Your task to perform on an android device: Open eBay Image 0: 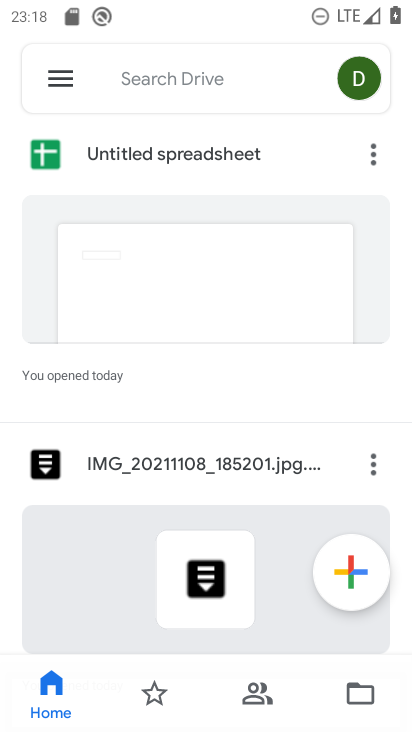
Step 0: press home button
Your task to perform on an android device: Open eBay Image 1: 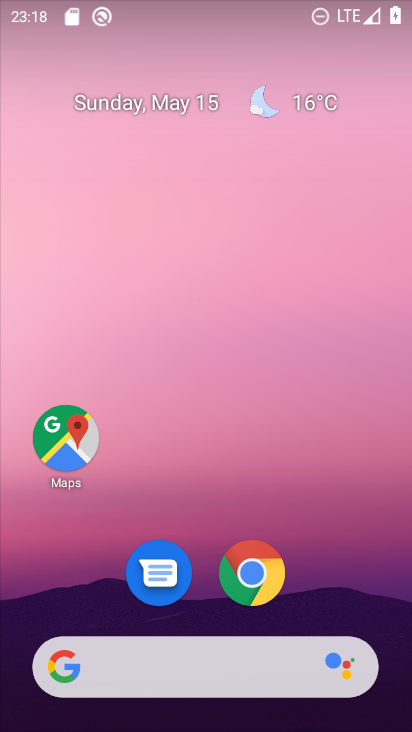
Step 1: click (255, 588)
Your task to perform on an android device: Open eBay Image 2: 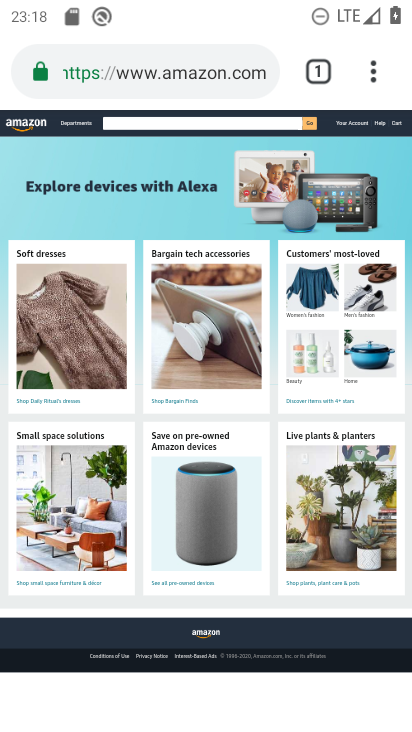
Step 2: click (213, 58)
Your task to perform on an android device: Open eBay Image 3: 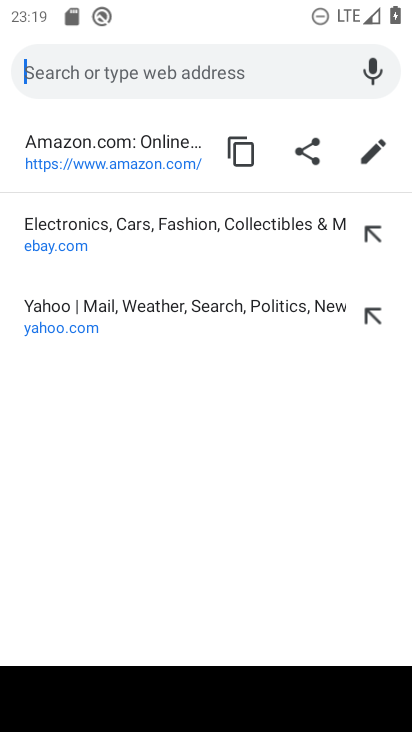
Step 3: type "eBay"
Your task to perform on an android device: Open eBay Image 4: 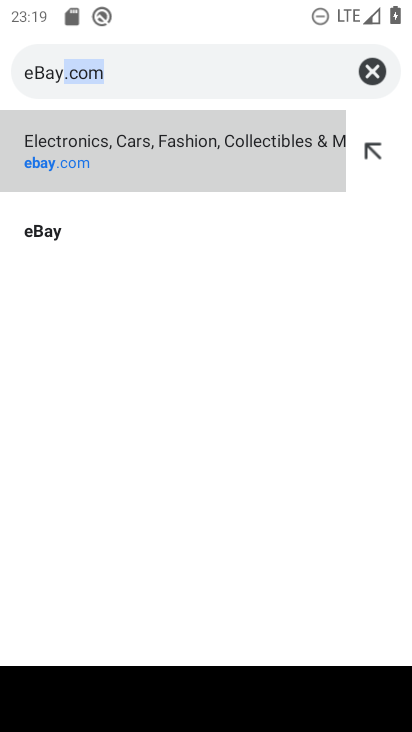
Step 4: click (284, 168)
Your task to perform on an android device: Open eBay Image 5: 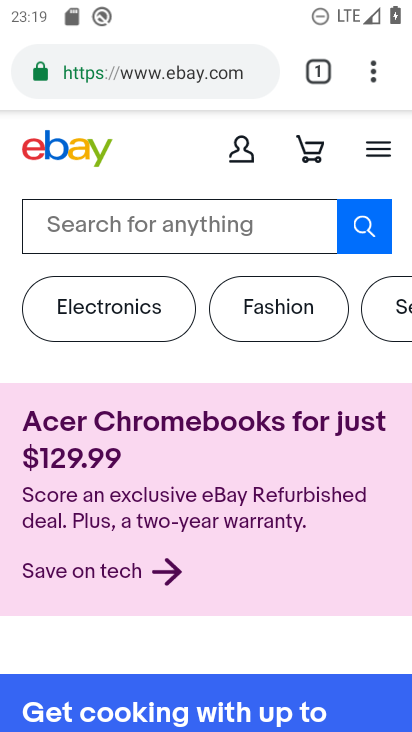
Step 5: task complete